Your task to perform on an android device: Go to Wikipedia Image 0: 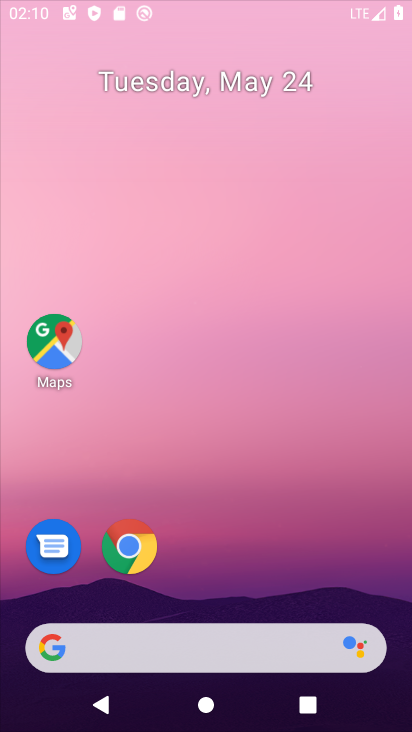
Step 0: drag from (203, 572) to (280, 135)
Your task to perform on an android device: Go to Wikipedia Image 1: 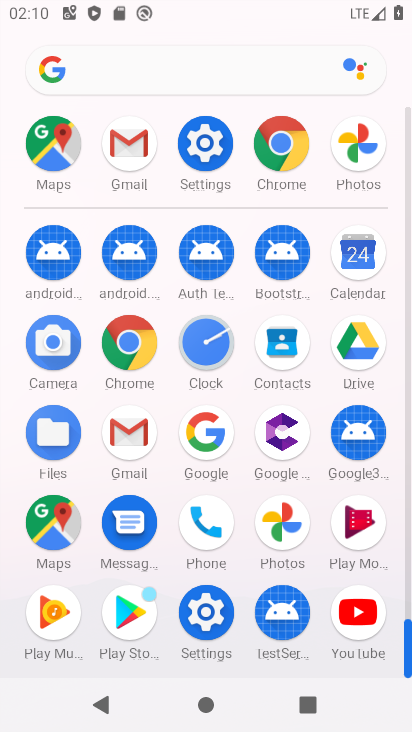
Step 1: click (202, 72)
Your task to perform on an android device: Go to Wikipedia Image 2: 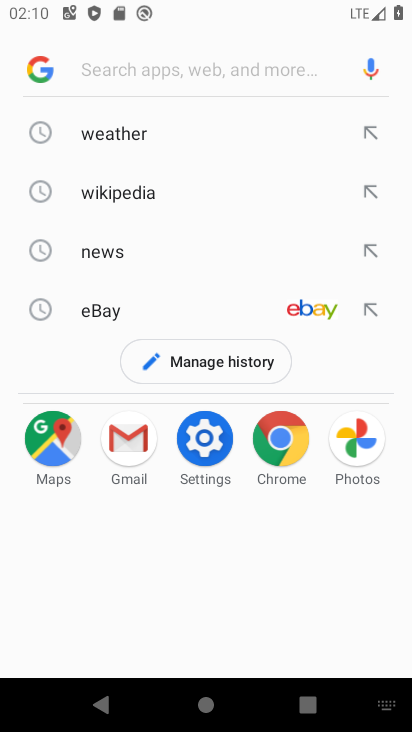
Step 2: click (130, 189)
Your task to perform on an android device: Go to Wikipedia Image 3: 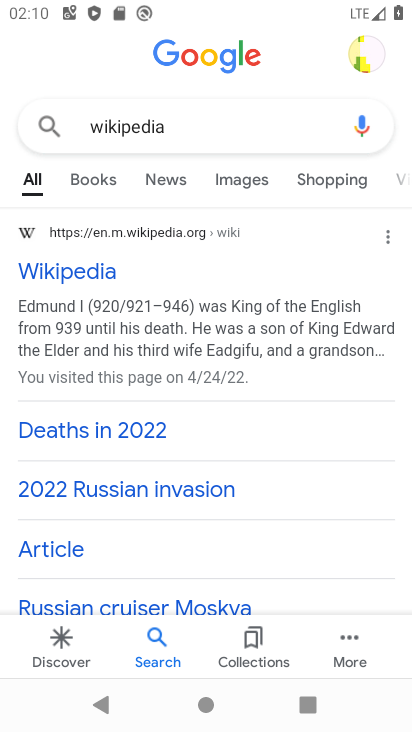
Step 3: click (64, 263)
Your task to perform on an android device: Go to Wikipedia Image 4: 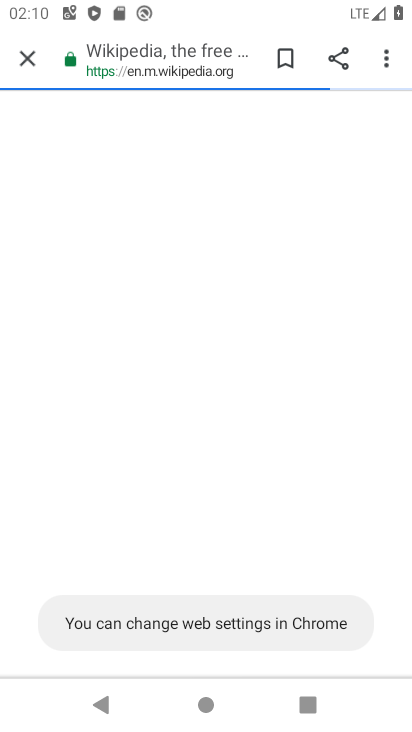
Step 4: task complete